Your task to perform on an android device: Go to Google Image 0: 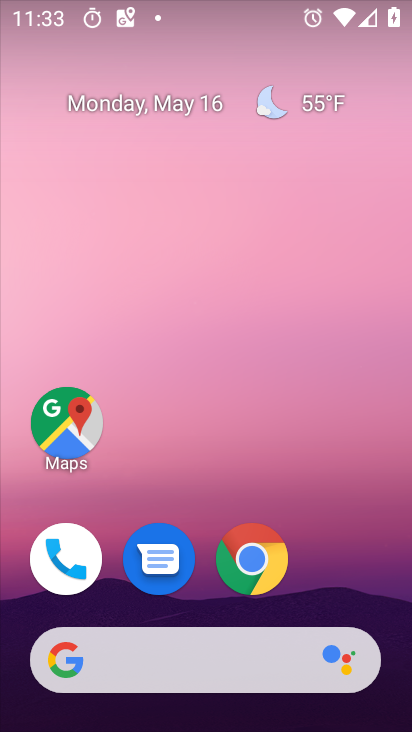
Step 0: drag from (327, 566) to (381, 151)
Your task to perform on an android device: Go to Google Image 1: 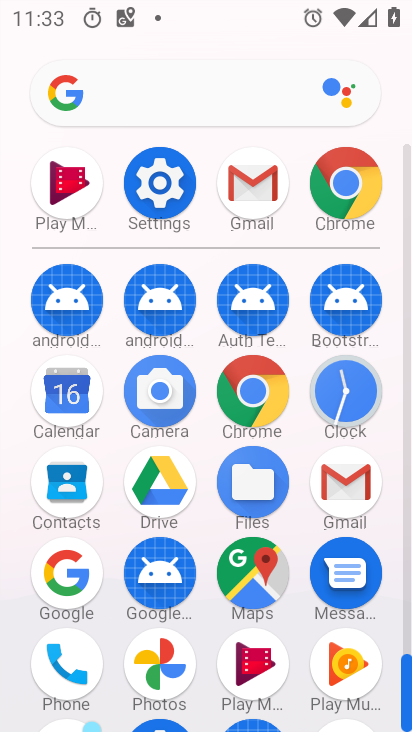
Step 1: click (61, 576)
Your task to perform on an android device: Go to Google Image 2: 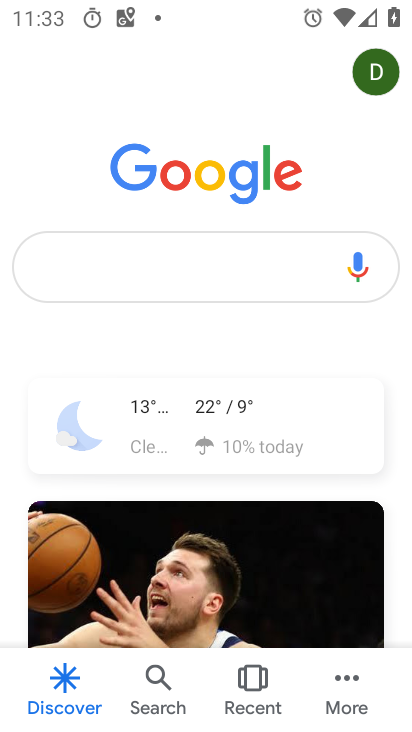
Step 2: task complete